Your task to perform on an android device: Open network settings Image 0: 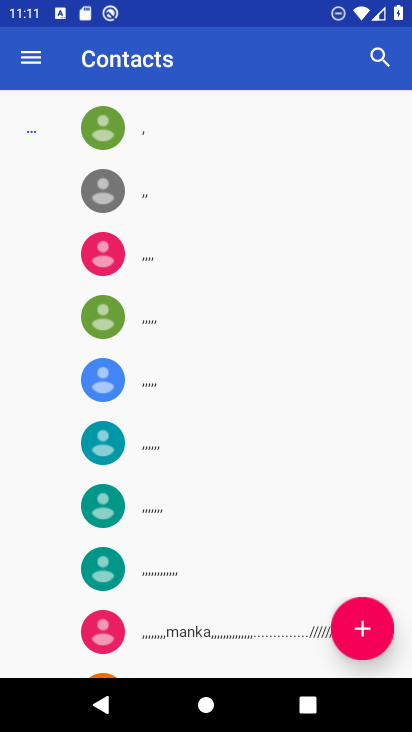
Step 0: drag from (215, 18) to (181, 564)
Your task to perform on an android device: Open network settings Image 1: 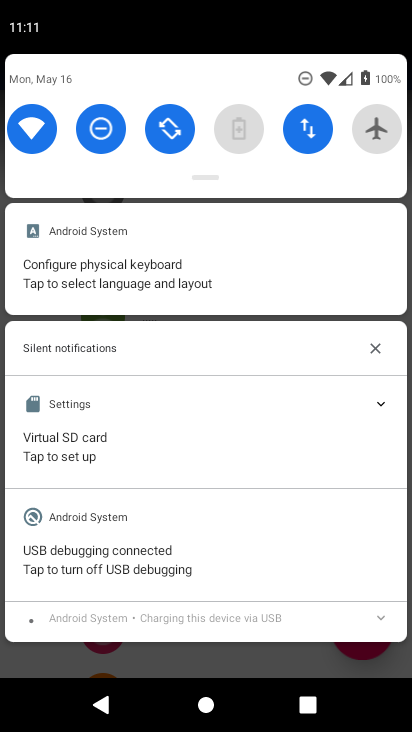
Step 1: click (313, 137)
Your task to perform on an android device: Open network settings Image 2: 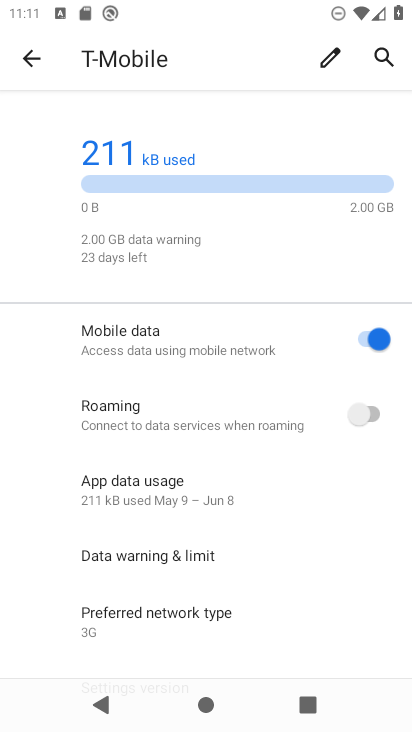
Step 2: task complete